Your task to perform on an android device: Go to display settings Image 0: 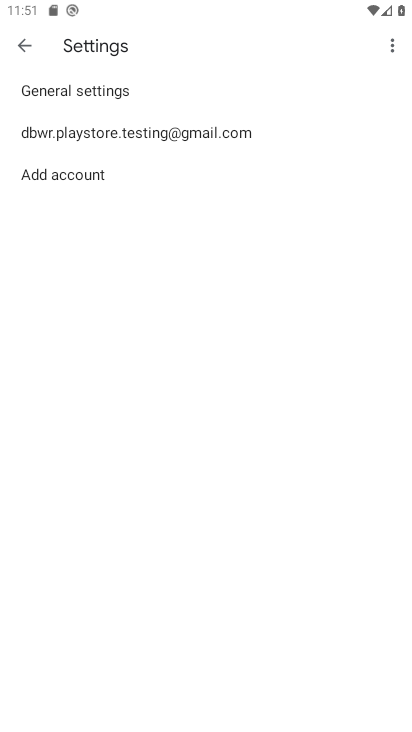
Step 0: press home button
Your task to perform on an android device: Go to display settings Image 1: 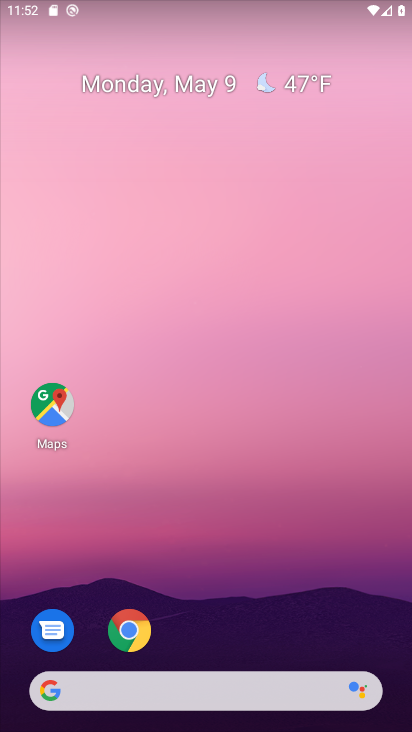
Step 1: drag from (241, 621) to (171, 182)
Your task to perform on an android device: Go to display settings Image 2: 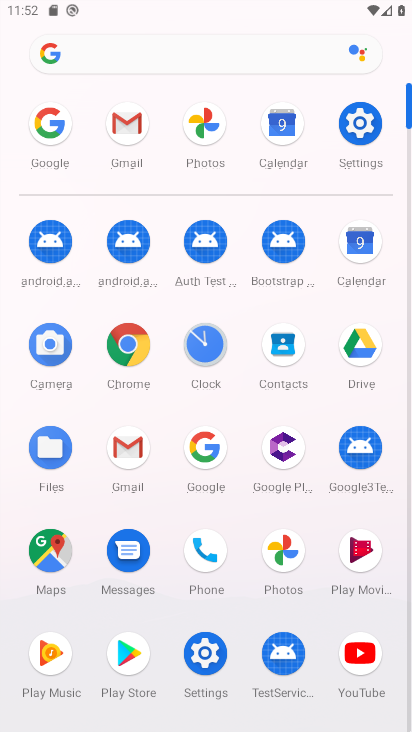
Step 2: click (354, 127)
Your task to perform on an android device: Go to display settings Image 3: 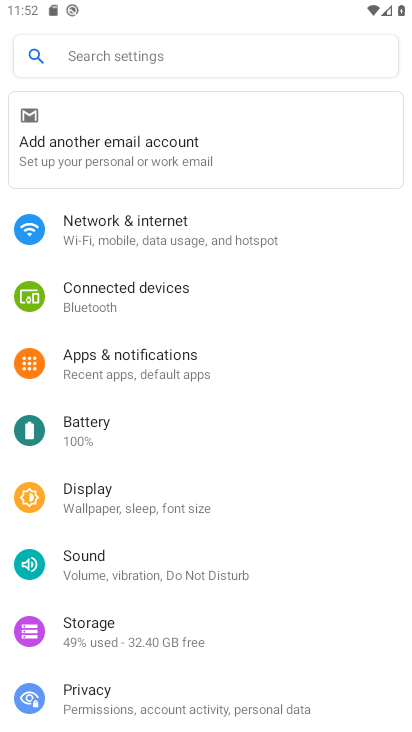
Step 3: click (88, 490)
Your task to perform on an android device: Go to display settings Image 4: 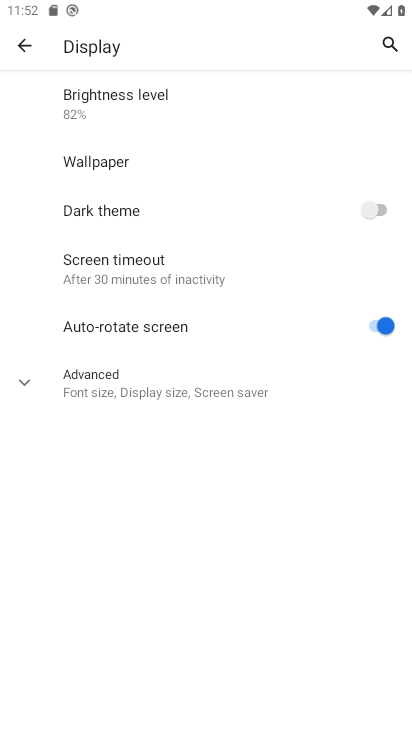
Step 4: click (126, 397)
Your task to perform on an android device: Go to display settings Image 5: 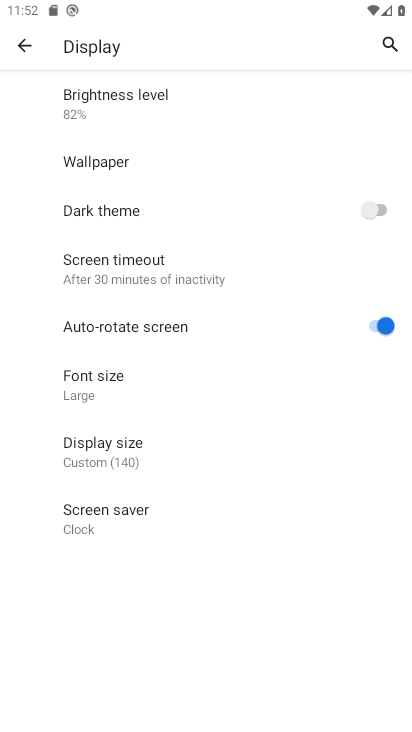
Step 5: task complete